Your task to perform on an android device: Open wifi settings Image 0: 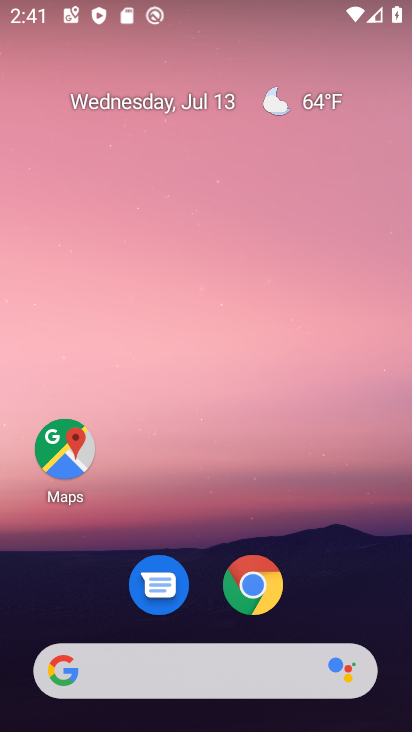
Step 0: press home button
Your task to perform on an android device: Open wifi settings Image 1: 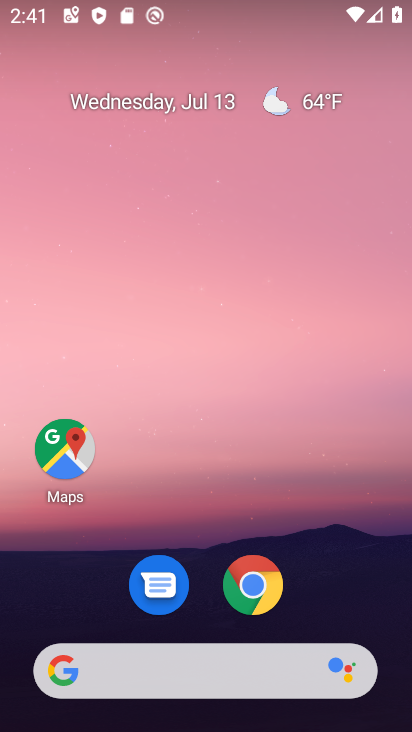
Step 1: drag from (181, 666) to (311, 54)
Your task to perform on an android device: Open wifi settings Image 2: 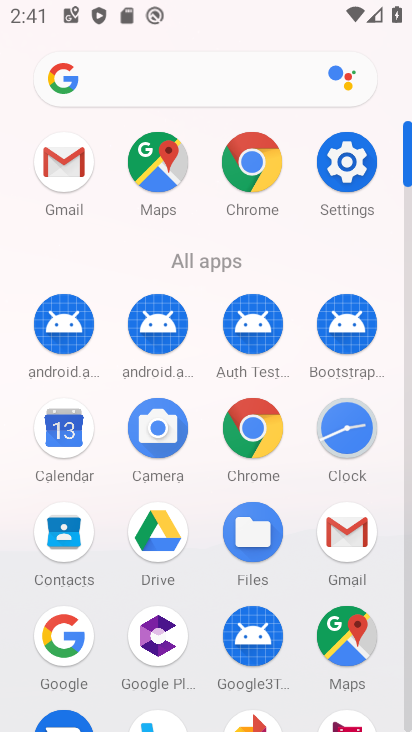
Step 2: click (354, 174)
Your task to perform on an android device: Open wifi settings Image 3: 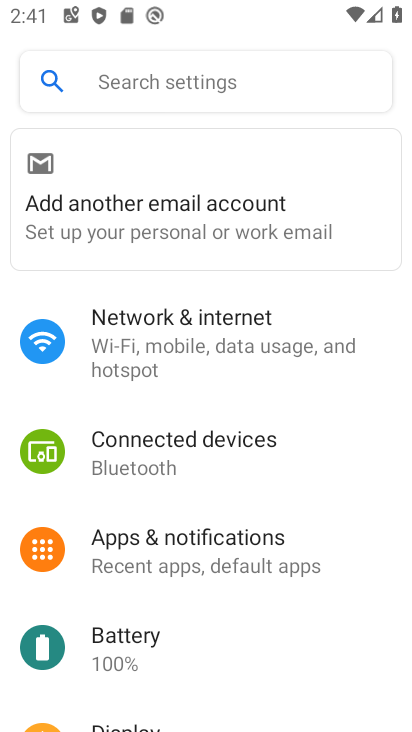
Step 3: click (239, 314)
Your task to perform on an android device: Open wifi settings Image 4: 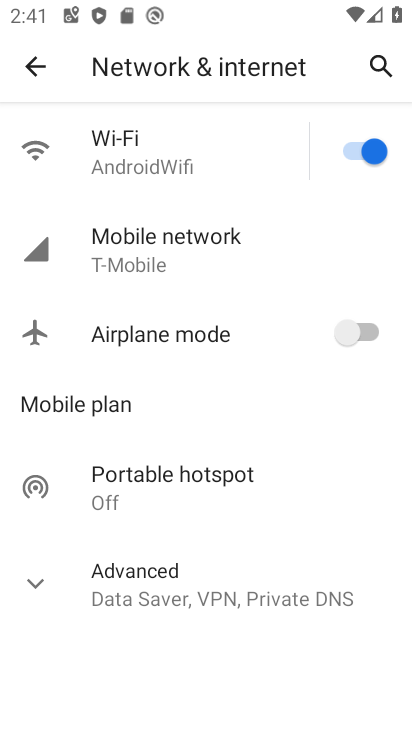
Step 4: click (130, 173)
Your task to perform on an android device: Open wifi settings Image 5: 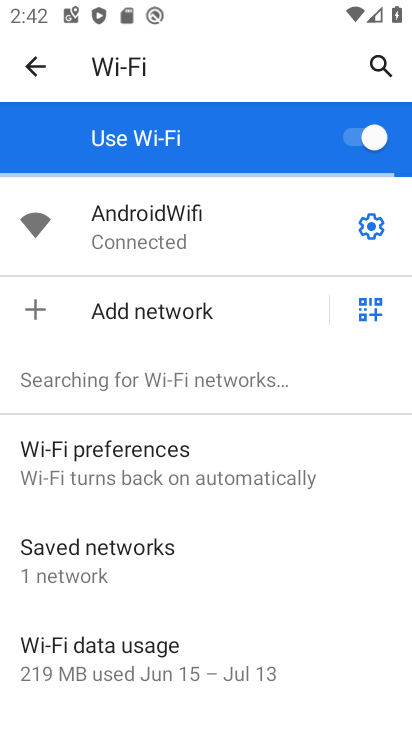
Step 5: task complete